Your task to perform on an android device: What's the weather going to be tomorrow? Image 0: 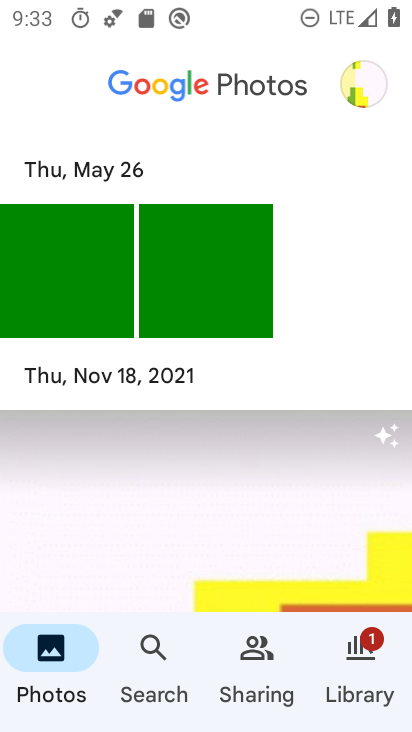
Step 0: press home button
Your task to perform on an android device: What's the weather going to be tomorrow? Image 1: 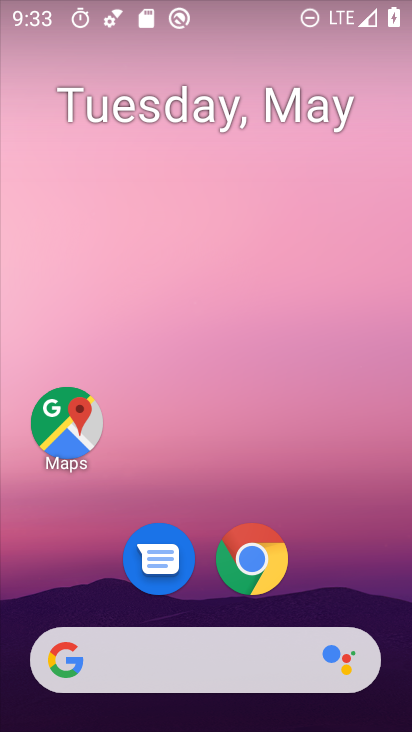
Step 1: drag from (382, 648) to (275, 149)
Your task to perform on an android device: What's the weather going to be tomorrow? Image 2: 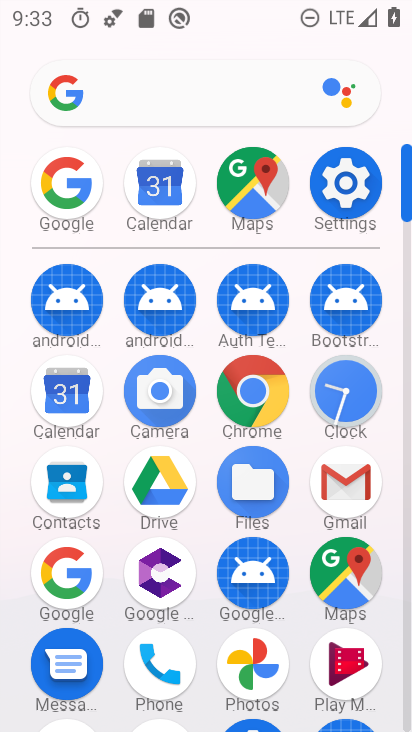
Step 2: click (48, 571)
Your task to perform on an android device: What's the weather going to be tomorrow? Image 3: 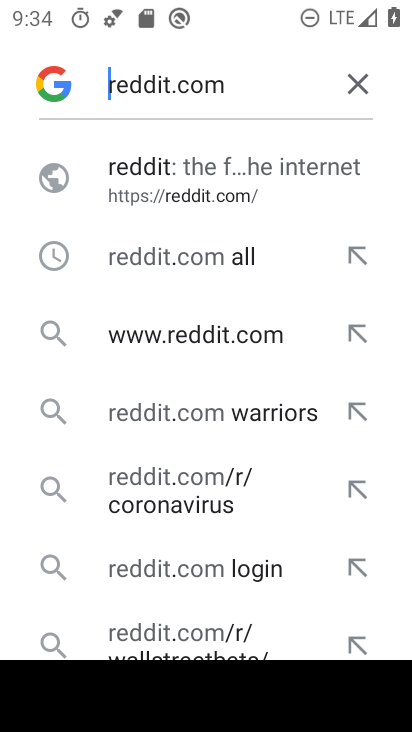
Step 3: click (358, 75)
Your task to perform on an android device: What's the weather going to be tomorrow? Image 4: 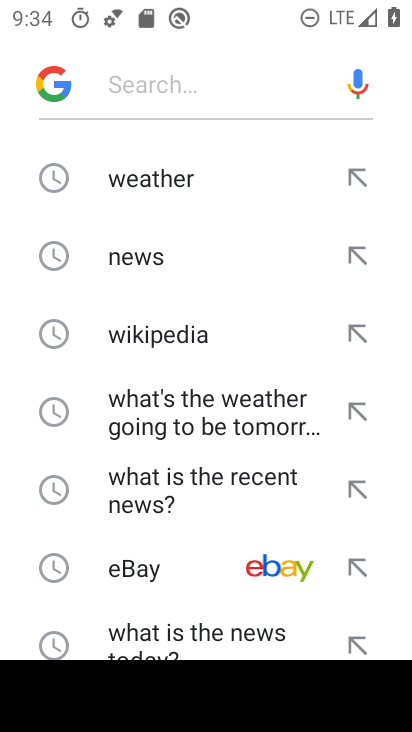
Step 4: click (242, 424)
Your task to perform on an android device: What's the weather going to be tomorrow? Image 5: 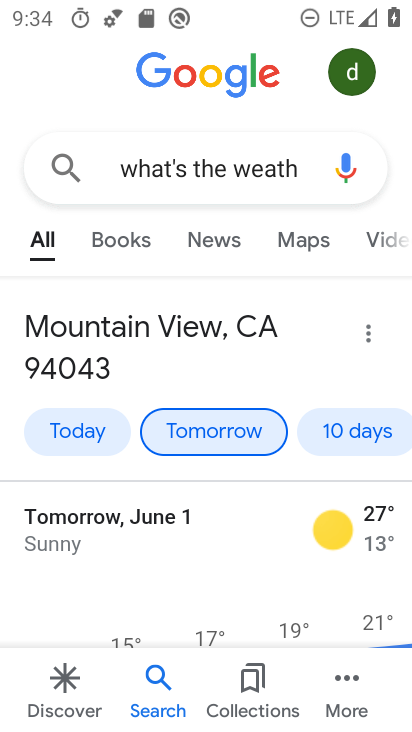
Step 5: task complete